Your task to perform on an android device: Show me popular games on the Play Store Image 0: 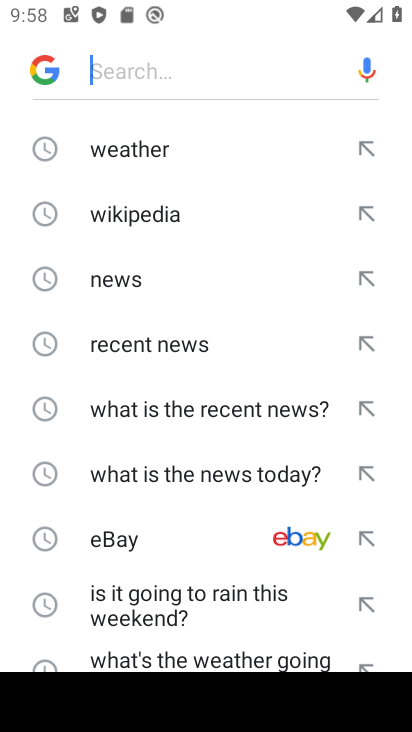
Step 0: press home button
Your task to perform on an android device: Show me popular games on the Play Store Image 1: 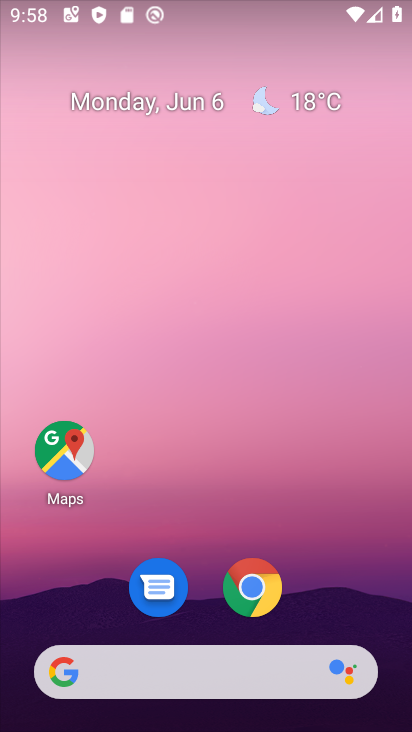
Step 1: drag from (326, 589) to (288, 184)
Your task to perform on an android device: Show me popular games on the Play Store Image 2: 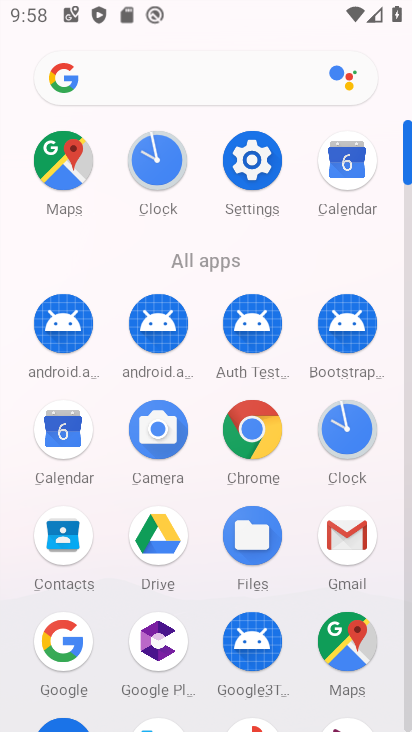
Step 2: click (402, 366)
Your task to perform on an android device: Show me popular games on the Play Store Image 3: 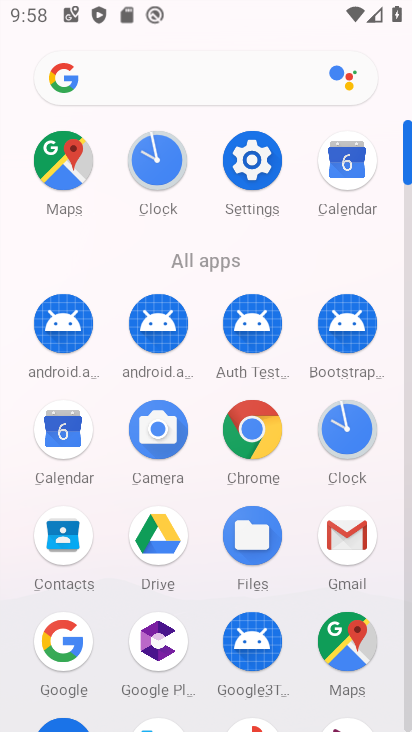
Step 3: click (403, 383)
Your task to perform on an android device: Show me popular games on the Play Store Image 4: 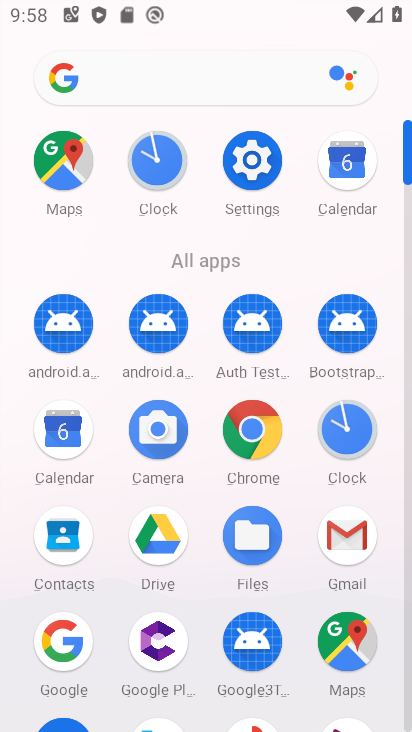
Step 4: click (402, 409)
Your task to perform on an android device: Show me popular games on the Play Store Image 5: 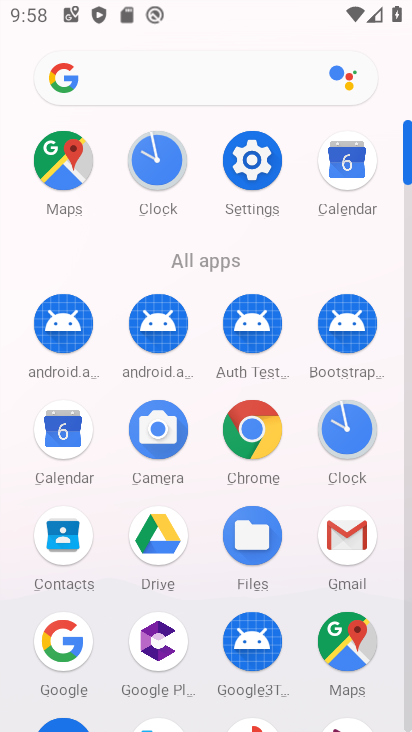
Step 5: click (409, 398)
Your task to perform on an android device: Show me popular games on the Play Store Image 6: 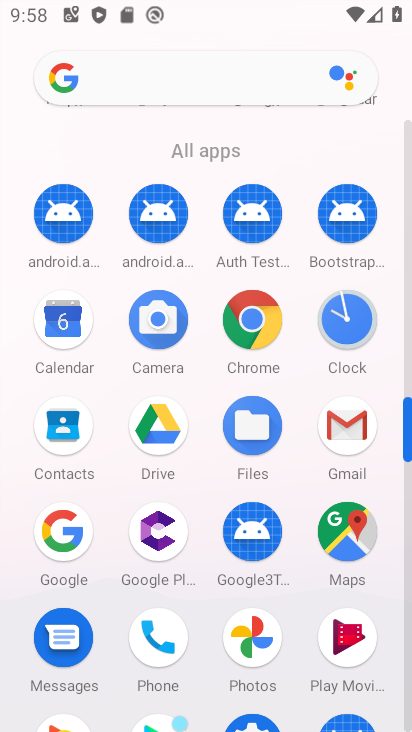
Step 6: click (407, 532)
Your task to perform on an android device: Show me popular games on the Play Store Image 7: 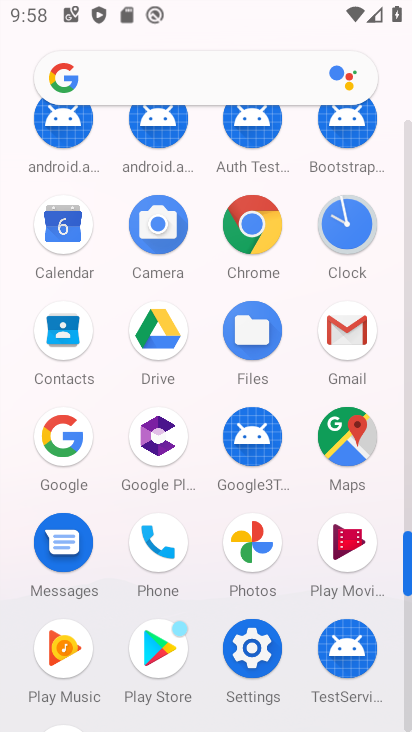
Step 7: click (169, 642)
Your task to perform on an android device: Show me popular games on the Play Store Image 8: 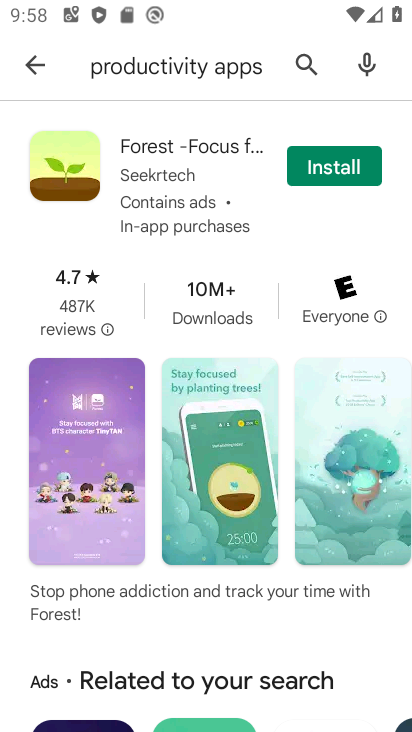
Step 8: click (38, 52)
Your task to perform on an android device: Show me popular games on the Play Store Image 9: 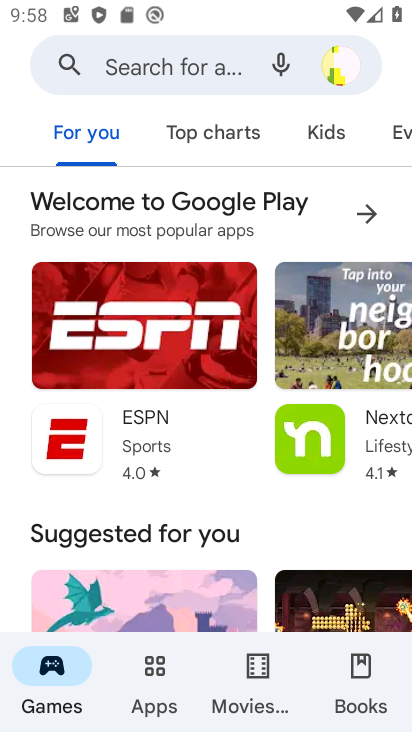
Step 9: click (138, 77)
Your task to perform on an android device: Show me popular games on the Play Store Image 10: 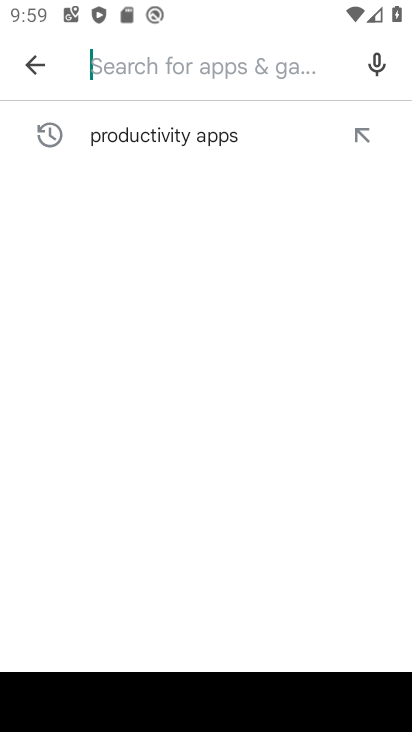
Step 10: type "popular games"
Your task to perform on an android device: Show me popular games on the Play Store Image 11: 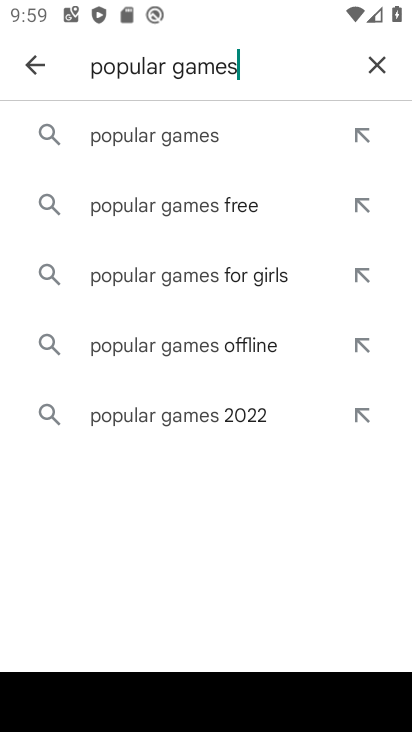
Step 11: click (274, 149)
Your task to perform on an android device: Show me popular games on the Play Store Image 12: 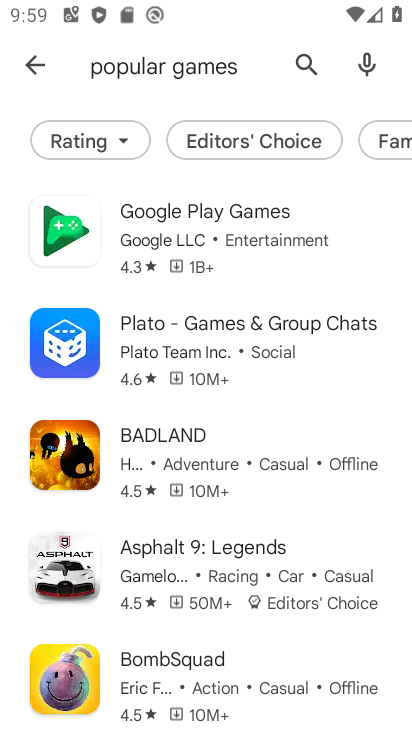
Step 12: task complete